Your task to perform on an android device: turn off improve location accuracy Image 0: 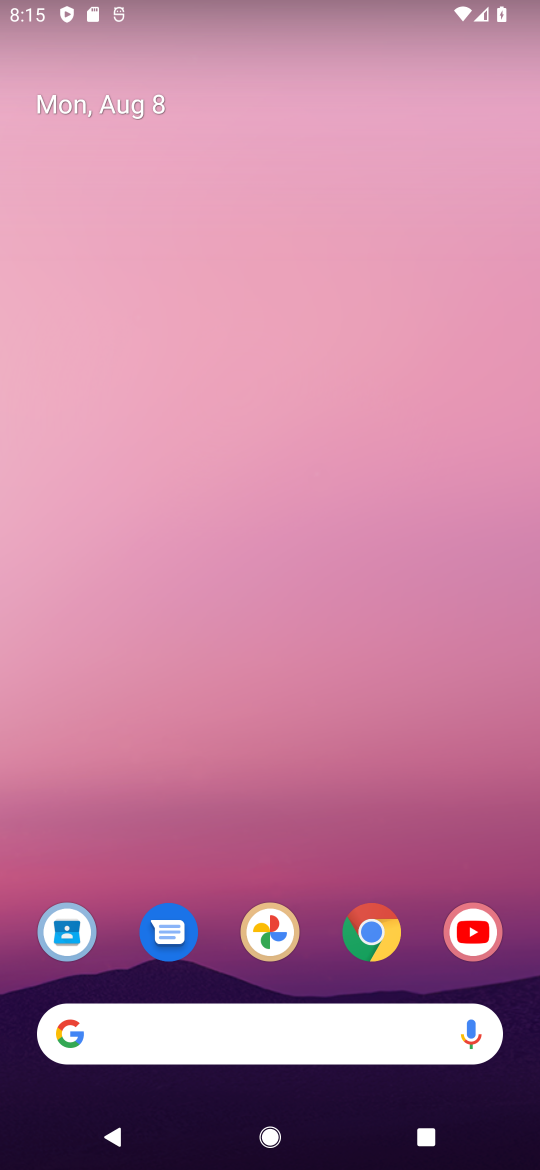
Step 0: drag from (242, 930) to (195, 102)
Your task to perform on an android device: turn off improve location accuracy Image 1: 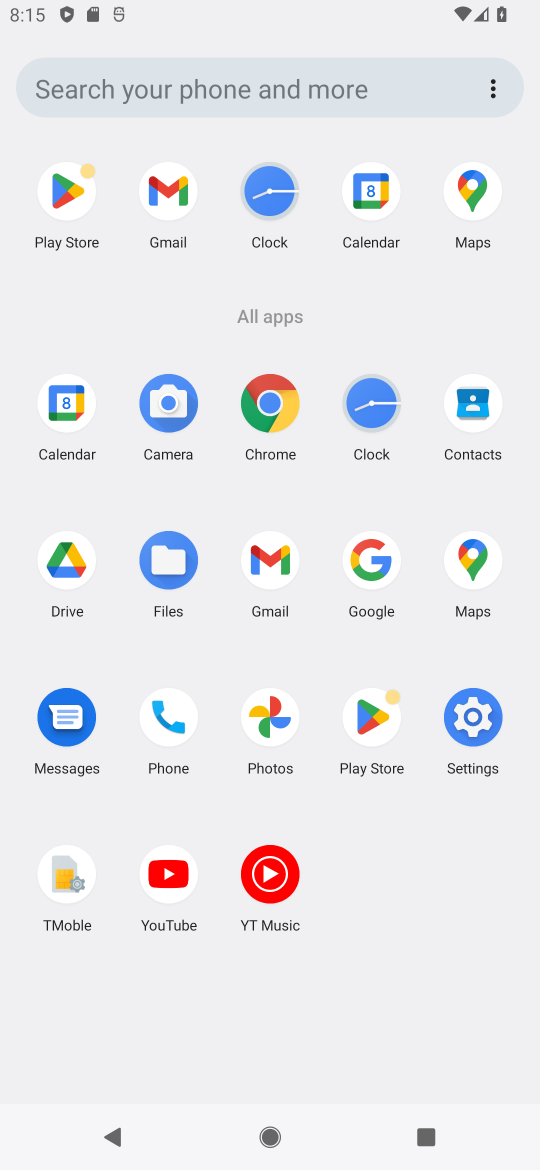
Step 1: click (477, 720)
Your task to perform on an android device: turn off improve location accuracy Image 2: 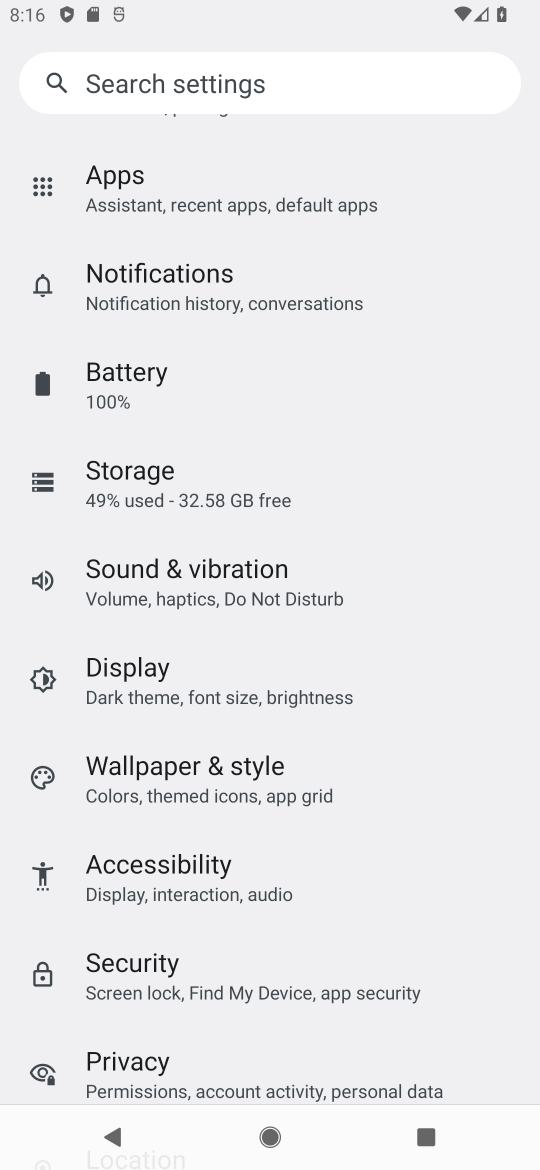
Step 2: drag from (250, 473) to (357, 272)
Your task to perform on an android device: turn off improve location accuracy Image 3: 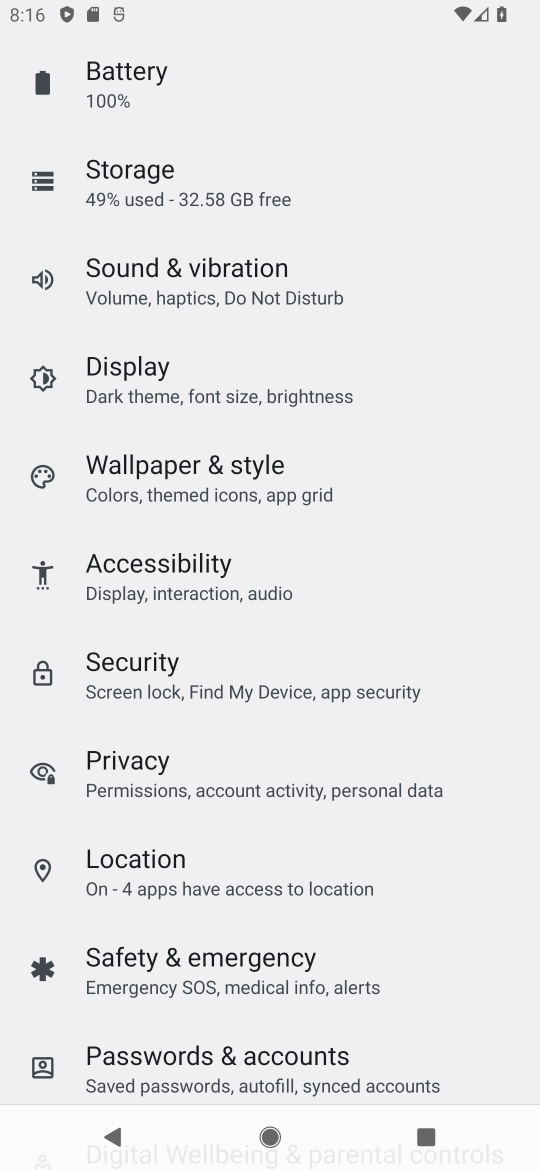
Step 3: click (202, 859)
Your task to perform on an android device: turn off improve location accuracy Image 4: 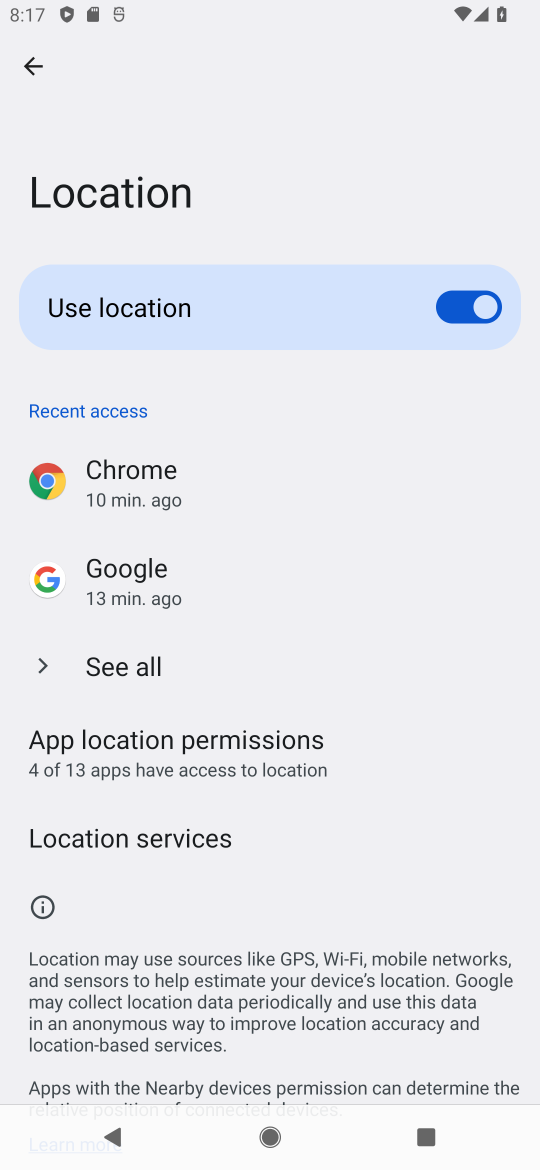
Step 4: click (187, 819)
Your task to perform on an android device: turn off improve location accuracy Image 5: 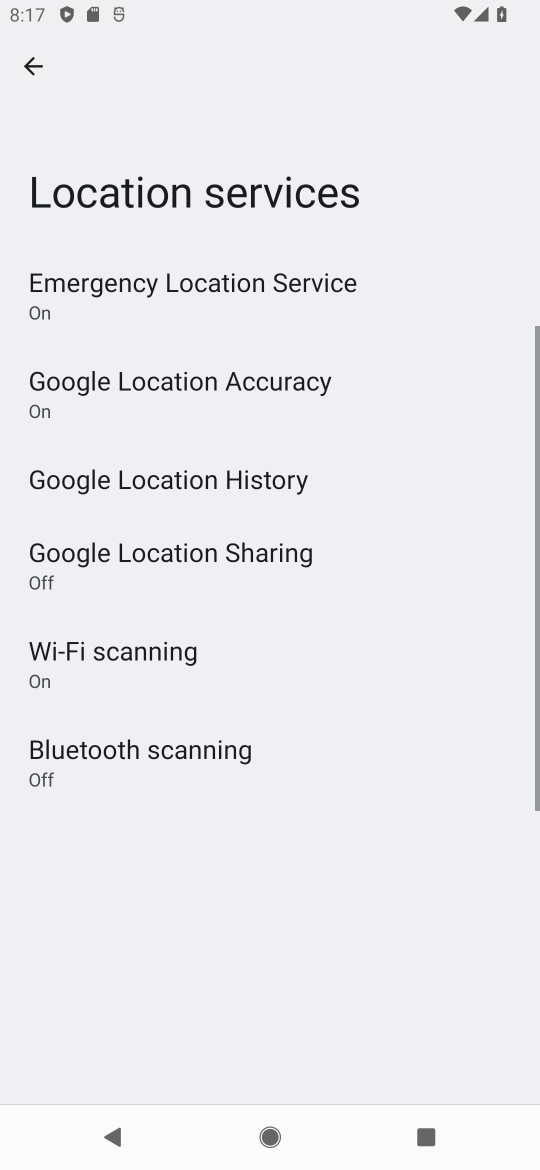
Step 5: click (176, 397)
Your task to perform on an android device: turn off improve location accuracy Image 6: 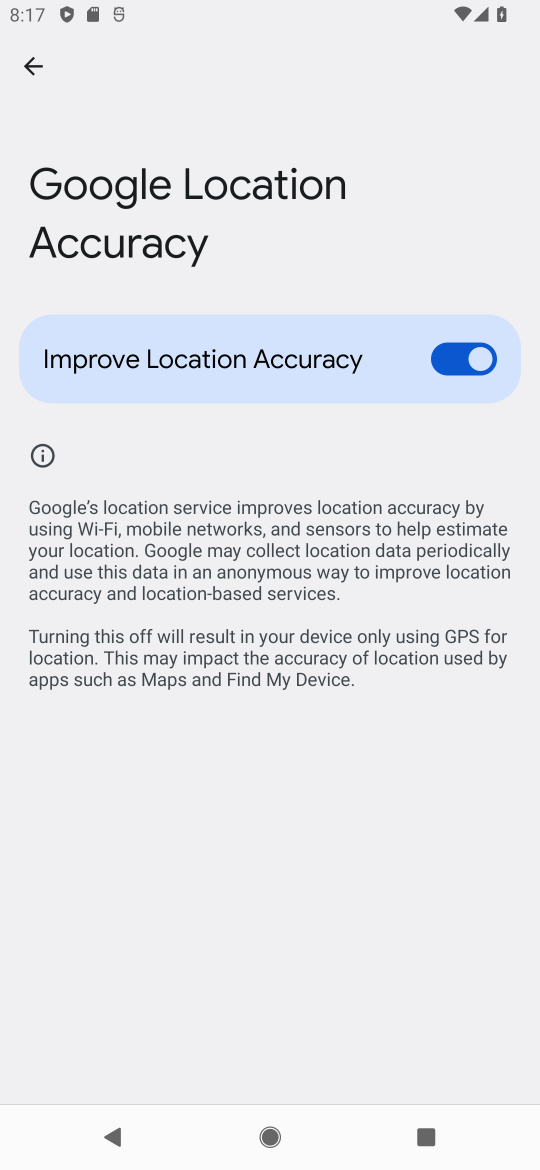
Step 6: click (480, 359)
Your task to perform on an android device: turn off improve location accuracy Image 7: 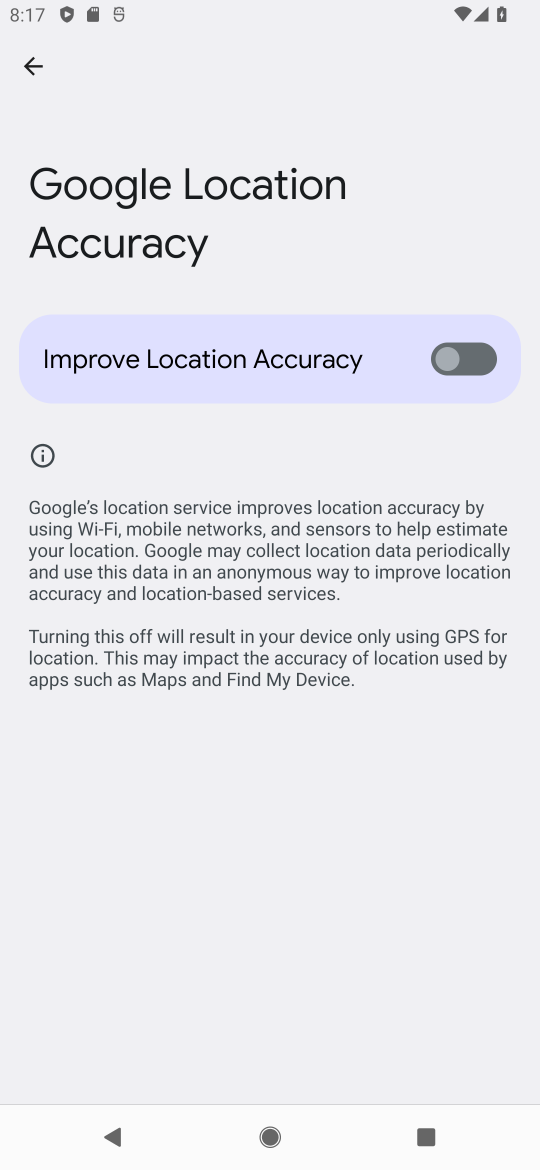
Step 7: task complete